Your task to perform on an android device: turn on wifi Image 0: 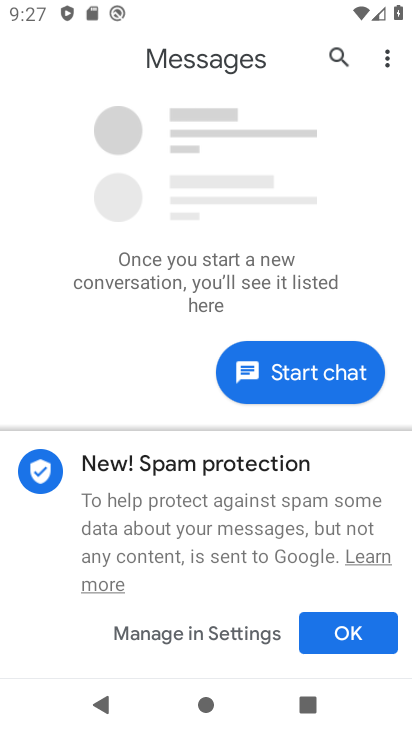
Step 0: press home button
Your task to perform on an android device: turn on wifi Image 1: 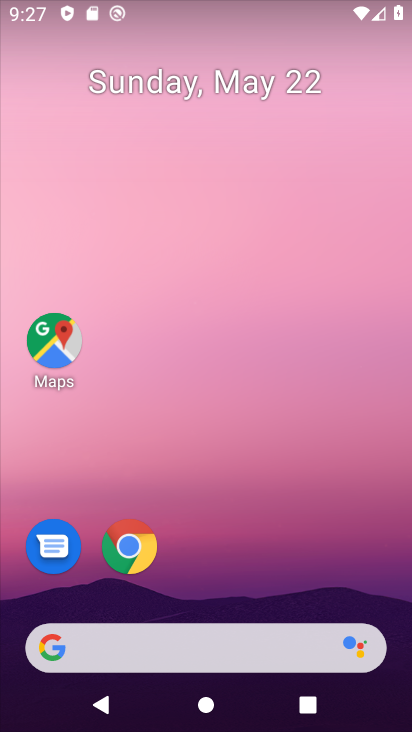
Step 1: drag from (244, 602) to (208, 203)
Your task to perform on an android device: turn on wifi Image 2: 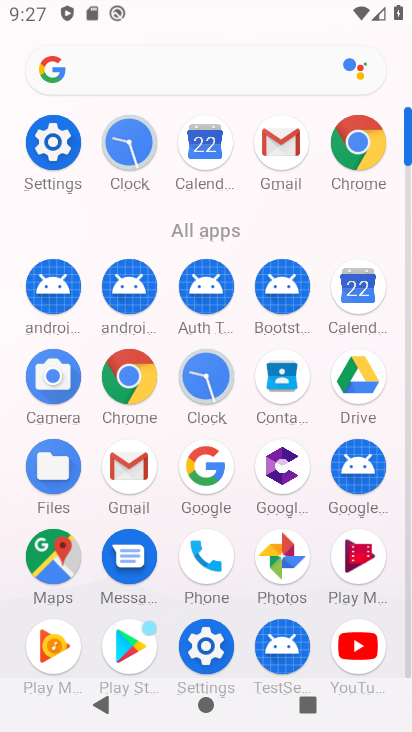
Step 2: click (61, 208)
Your task to perform on an android device: turn on wifi Image 3: 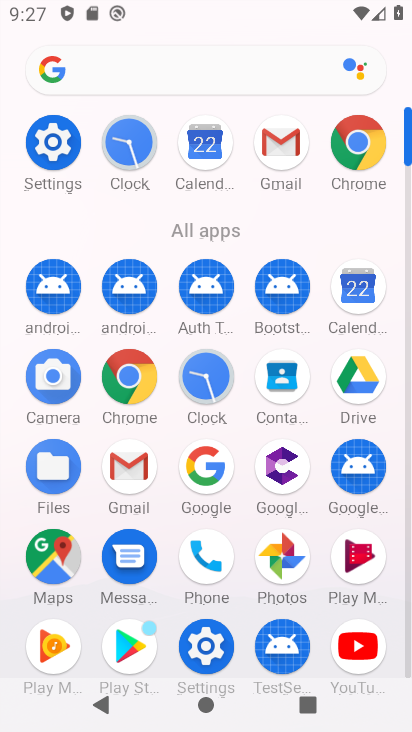
Step 3: click (50, 164)
Your task to perform on an android device: turn on wifi Image 4: 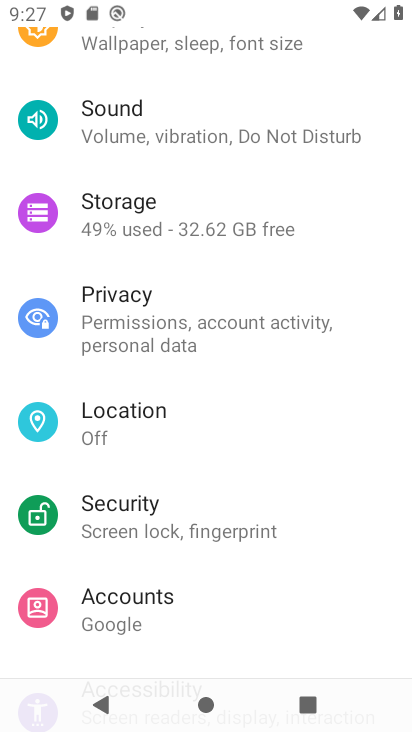
Step 4: drag from (249, 92) to (300, 723)
Your task to perform on an android device: turn on wifi Image 5: 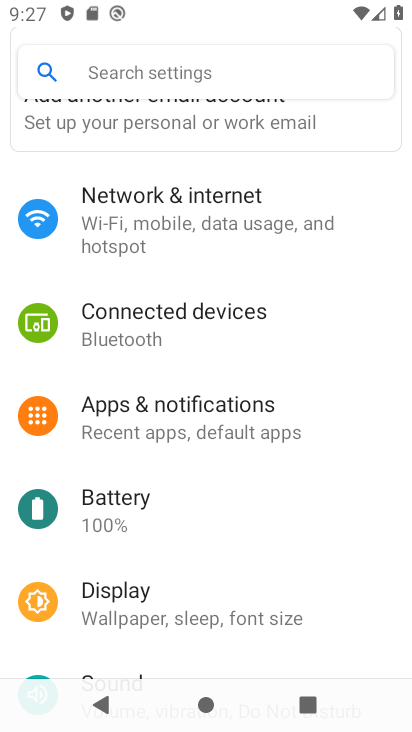
Step 5: click (184, 204)
Your task to perform on an android device: turn on wifi Image 6: 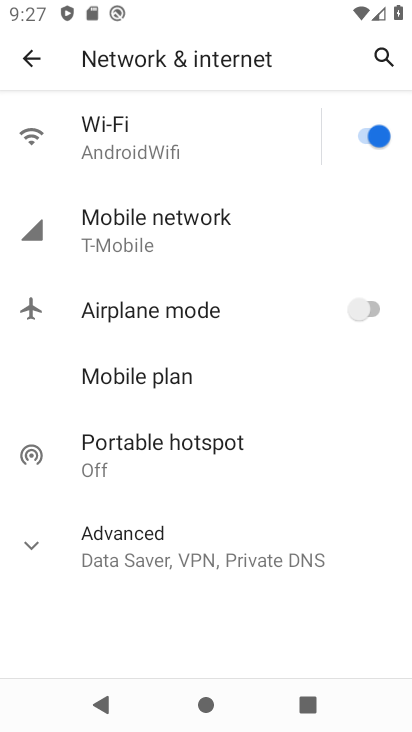
Step 6: task complete